Your task to perform on an android device: empty trash in the gmail app Image 0: 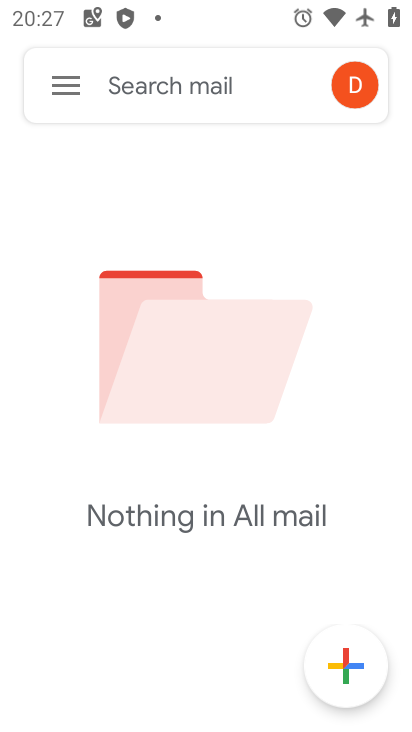
Step 0: press home button
Your task to perform on an android device: empty trash in the gmail app Image 1: 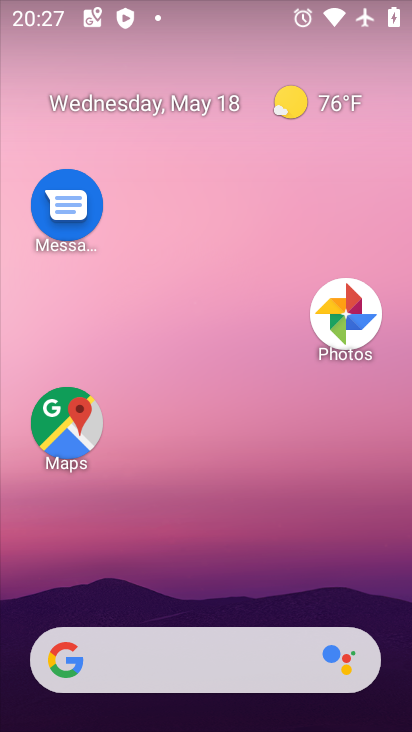
Step 1: drag from (180, 601) to (197, 31)
Your task to perform on an android device: empty trash in the gmail app Image 2: 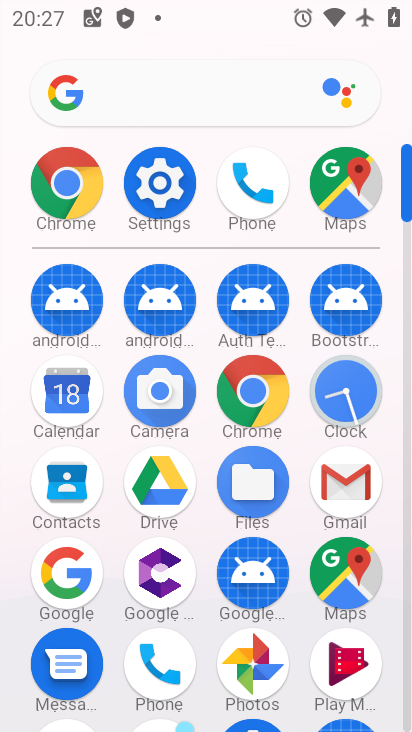
Step 2: click (345, 502)
Your task to perform on an android device: empty trash in the gmail app Image 3: 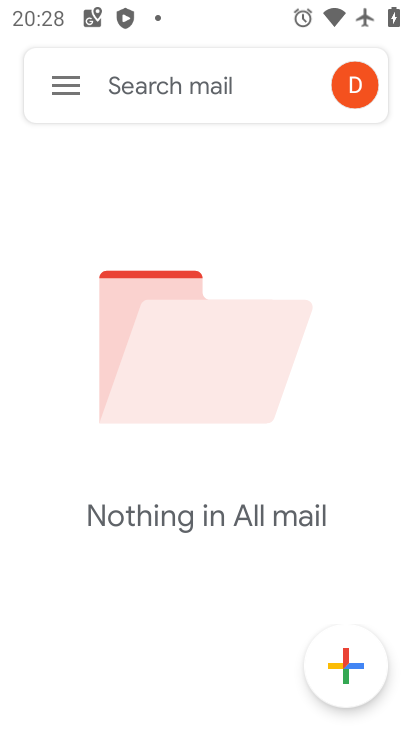
Step 3: click (54, 82)
Your task to perform on an android device: empty trash in the gmail app Image 4: 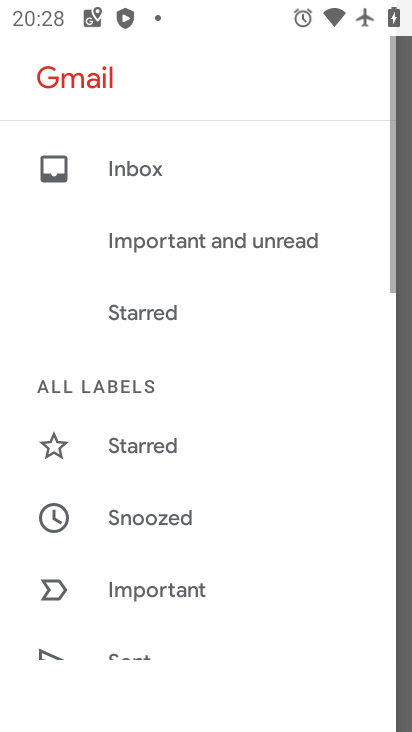
Step 4: drag from (140, 504) to (139, 128)
Your task to perform on an android device: empty trash in the gmail app Image 5: 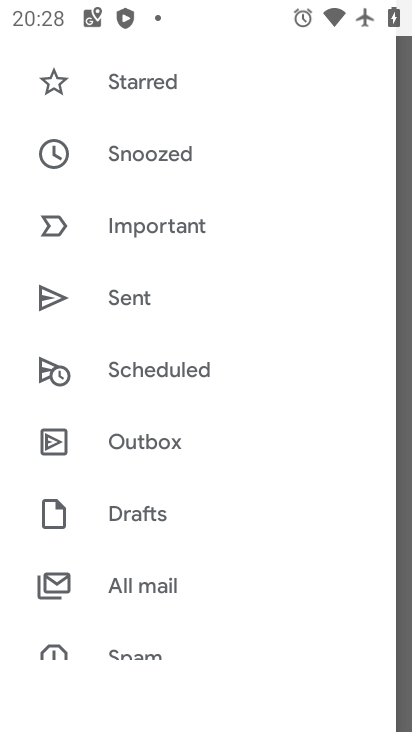
Step 5: drag from (246, 565) to (209, 169)
Your task to perform on an android device: empty trash in the gmail app Image 6: 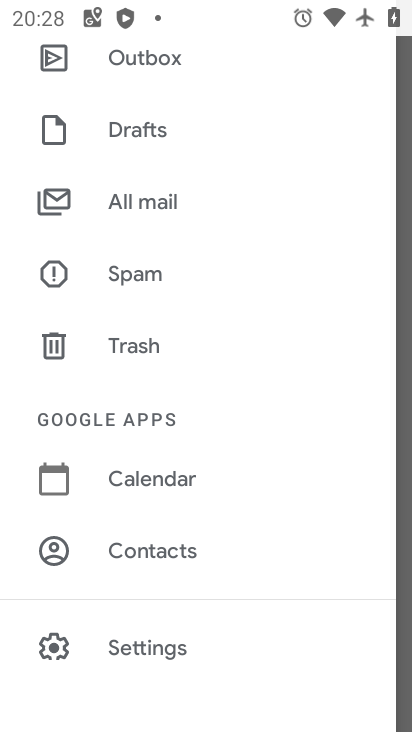
Step 6: click (149, 344)
Your task to perform on an android device: empty trash in the gmail app Image 7: 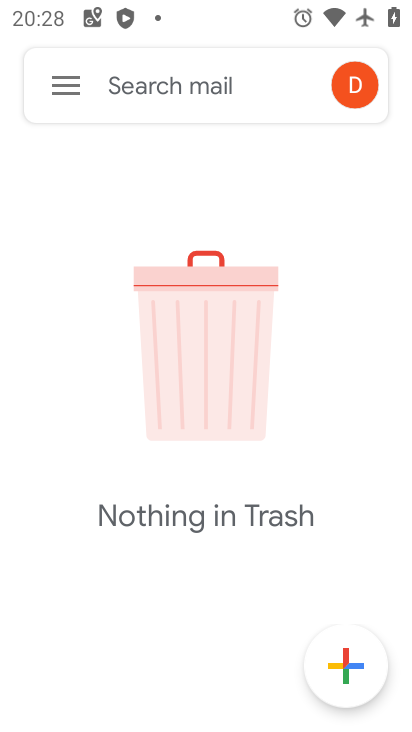
Step 7: task complete